Your task to perform on an android device: Open Google Image 0: 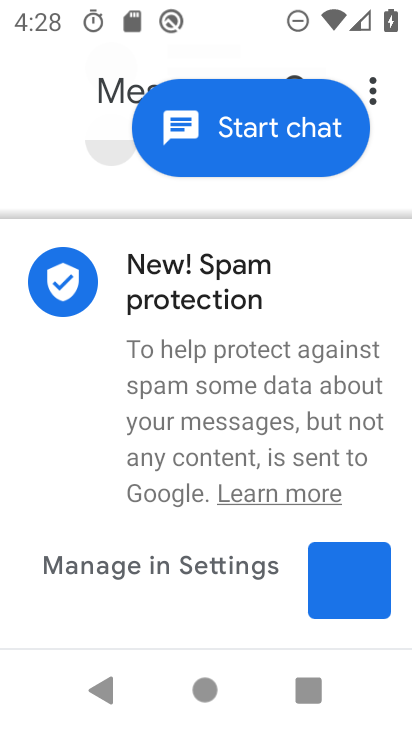
Step 0: press home button
Your task to perform on an android device: Open Google Image 1: 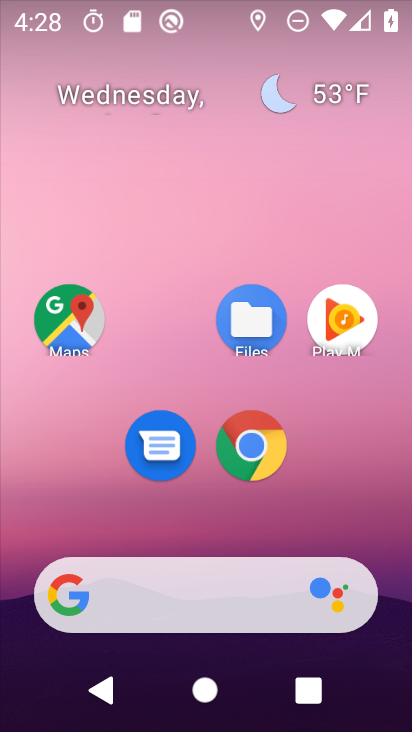
Step 1: click (221, 599)
Your task to perform on an android device: Open Google Image 2: 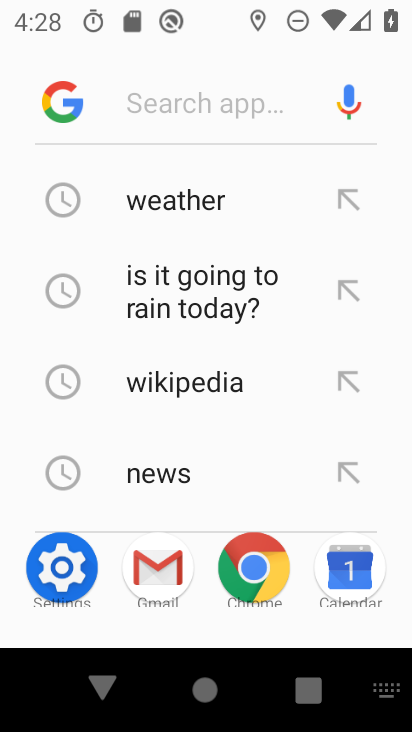
Step 2: task complete